Your task to perform on an android device: clear all cookies in the chrome app Image 0: 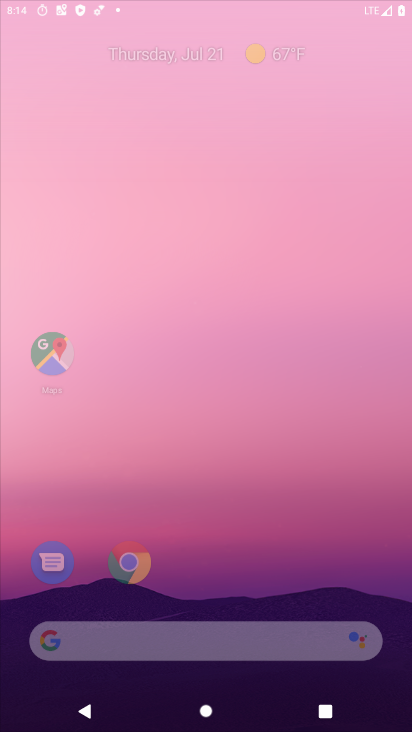
Step 0: drag from (235, 501) to (261, 187)
Your task to perform on an android device: clear all cookies in the chrome app Image 1: 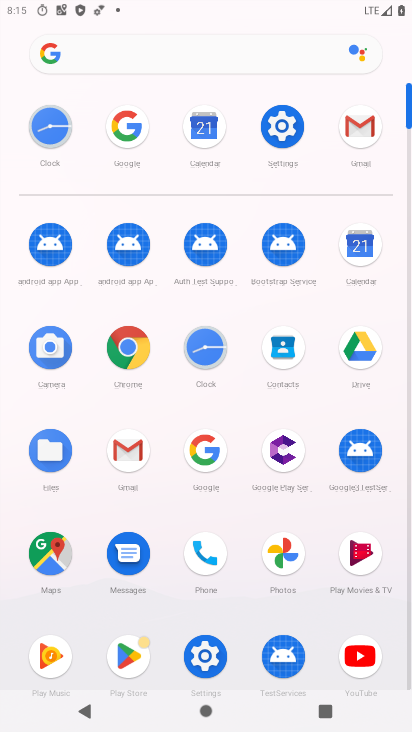
Step 1: click (138, 337)
Your task to perform on an android device: clear all cookies in the chrome app Image 2: 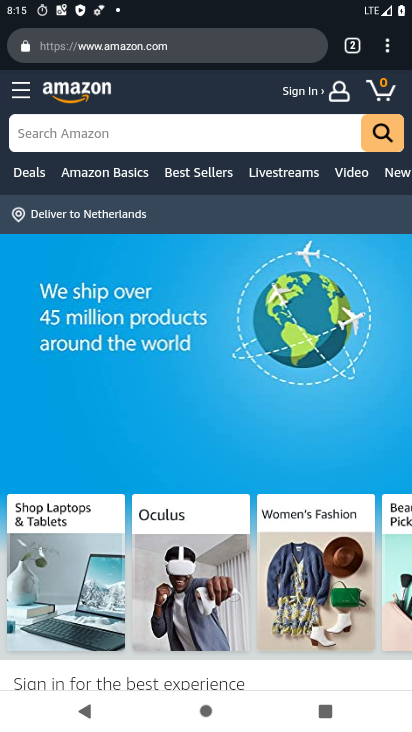
Step 2: click (388, 42)
Your task to perform on an android device: clear all cookies in the chrome app Image 3: 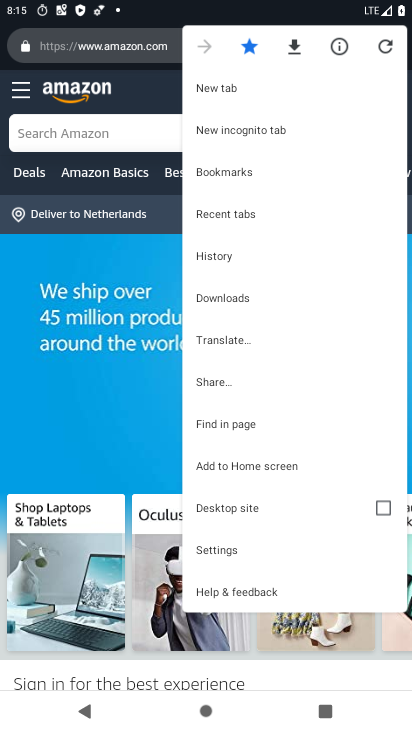
Step 3: click (219, 258)
Your task to perform on an android device: clear all cookies in the chrome app Image 4: 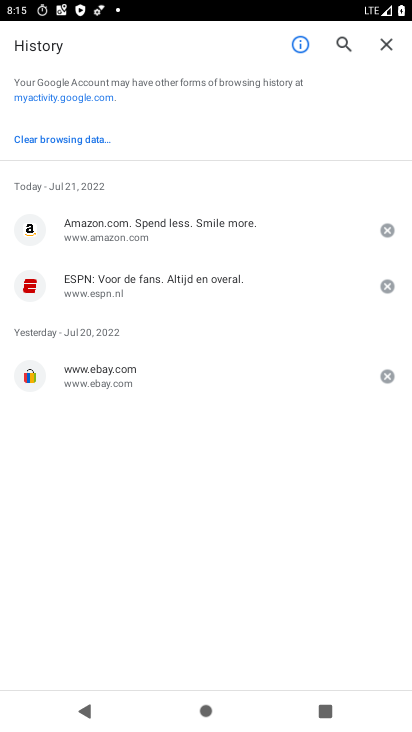
Step 4: click (84, 144)
Your task to perform on an android device: clear all cookies in the chrome app Image 5: 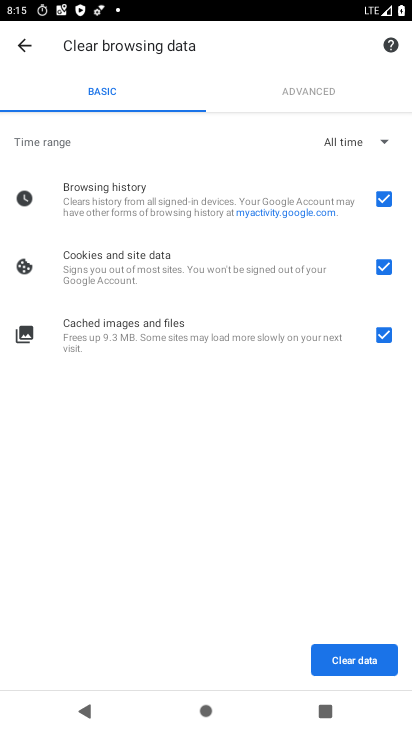
Step 5: click (354, 665)
Your task to perform on an android device: clear all cookies in the chrome app Image 6: 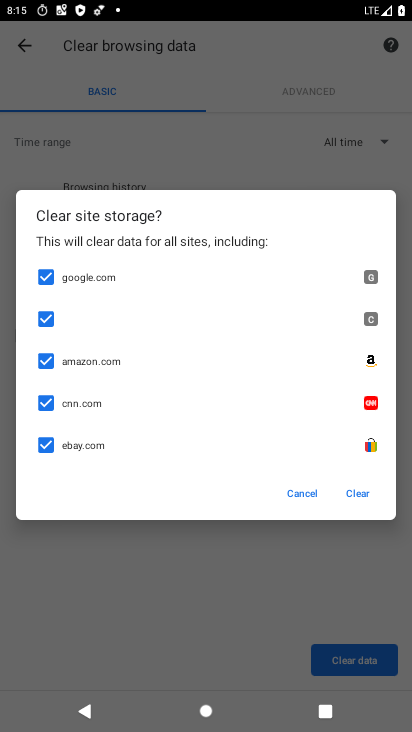
Step 6: click (361, 491)
Your task to perform on an android device: clear all cookies in the chrome app Image 7: 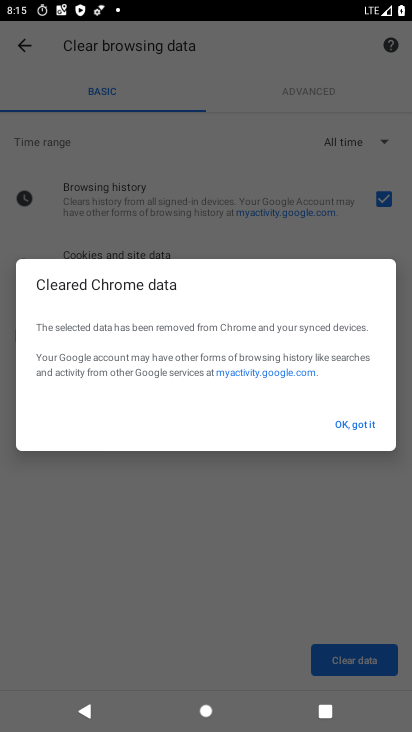
Step 7: click (357, 422)
Your task to perform on an android device: clear all cookies in the chrome app Image 8: 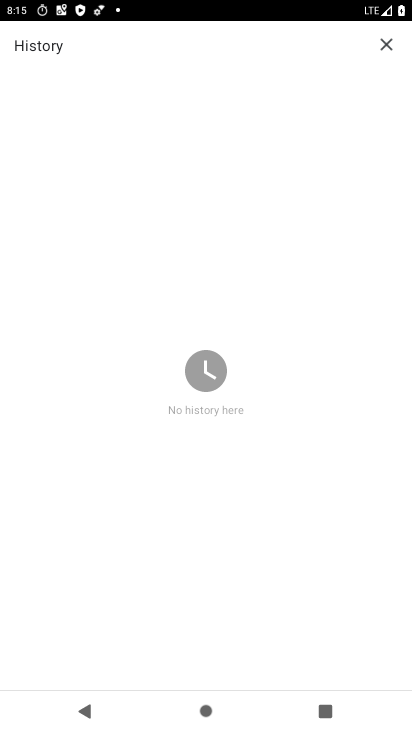
Step 8: task complete